Your task to perform on an android device: Clear all items from cart on costco. Add acer nitro to the cart on costco, then select checkout. Image 0: 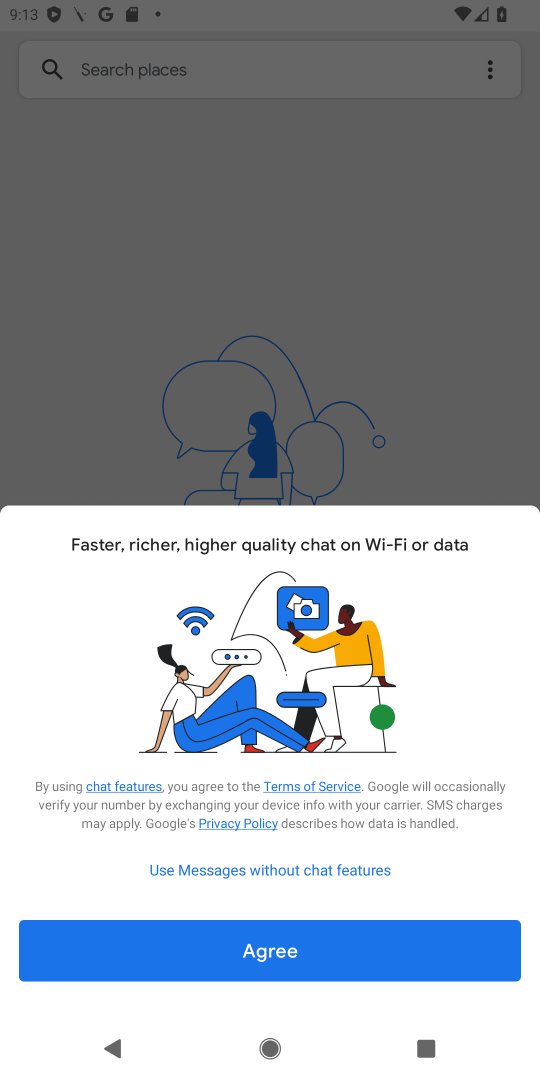
Step 0: press home button
Your task to perform on an android device: Clear all items from cart on costco. Add acer nitro to the cart on costco, then select checkout. Image 1: 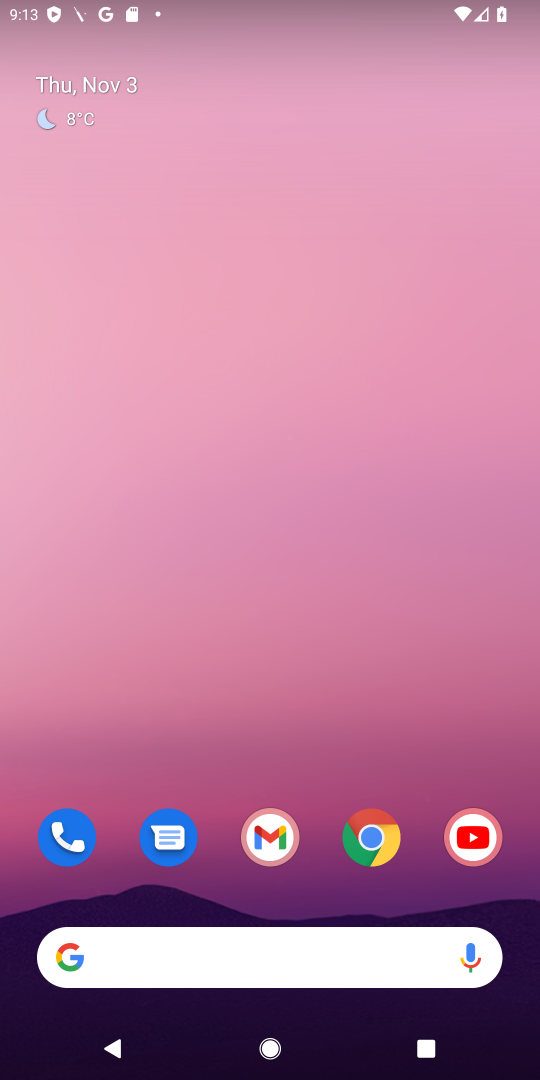
Step 1: click (369, 849)
Your task to perform on an android device: Clear all items from cart on costco. Add acer nitro to the cart on costco, then select checkout. Image 2: 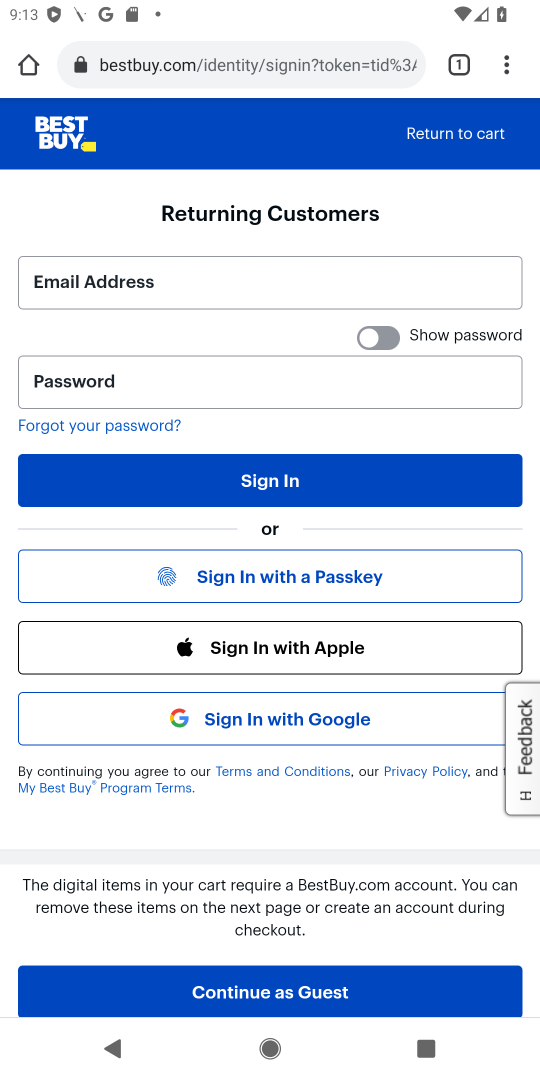
Step 2: click (302, 60)
Your task to perform on an android device: Clear all items from cart on costco. Add acer nitro to the cart on costco, then select checkout. Image 3: 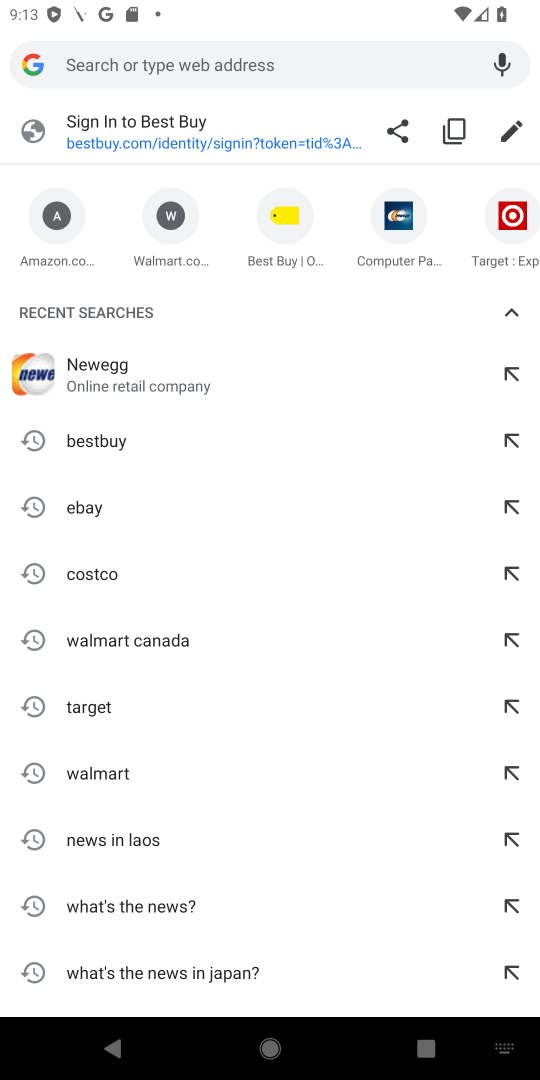
Step 3: click (99, 571)
Your task to perform on an android device: Clear all items from cart on costco. Add acer nitro to the cart on costco, then select checkout. Image 4: 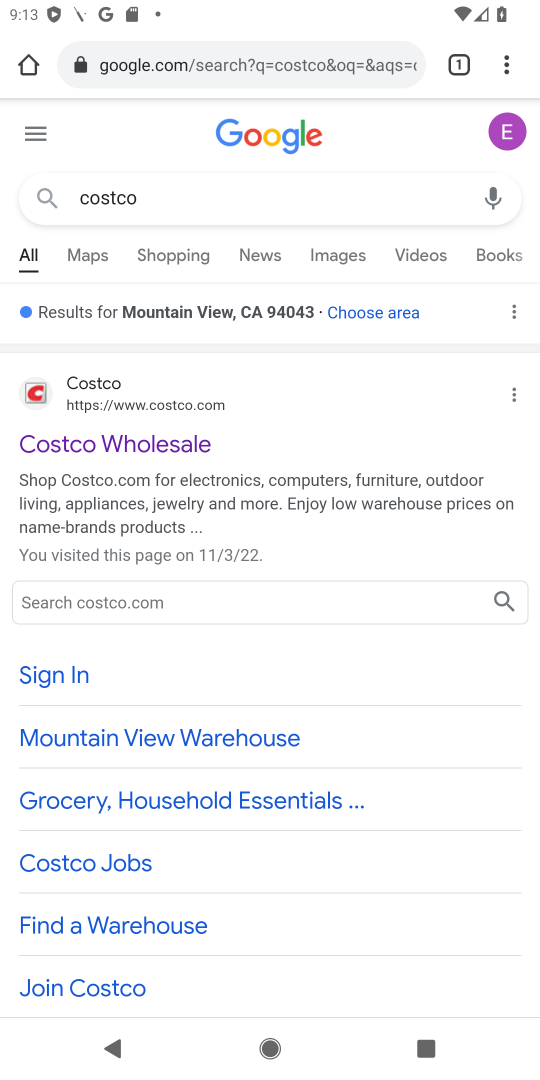
Step 4: click (167, 439)
Your task to perform on an android device: Clear all items from cart on costco. Add acer nitro to the cart on costco, then select checkout. Image 5: 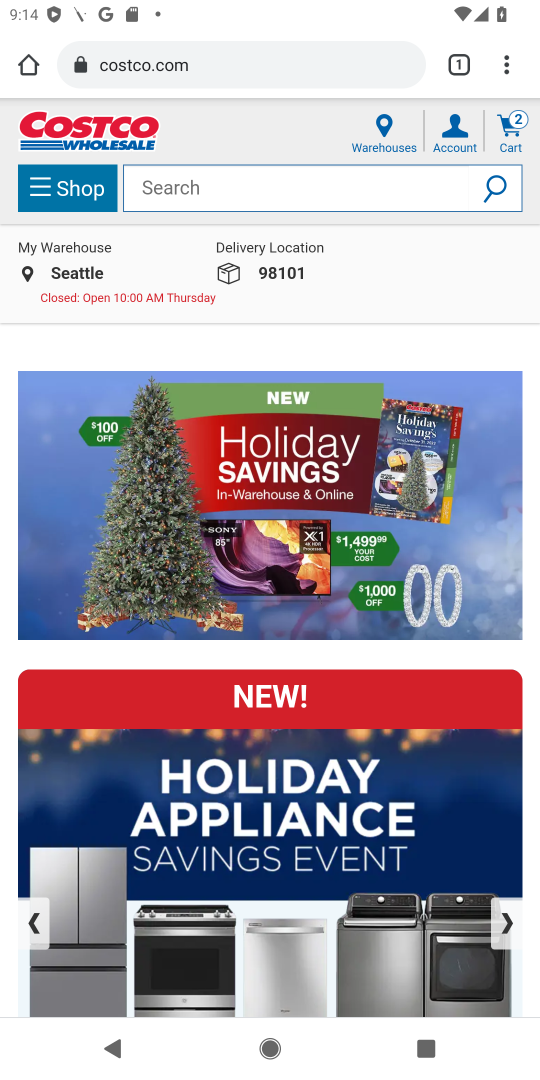
Step 5: click (262, 192)
Your task to perform on an android device: Clear all items from cart on costco. Add acer nitro to the cart on costco, then select checkout. Image 6: 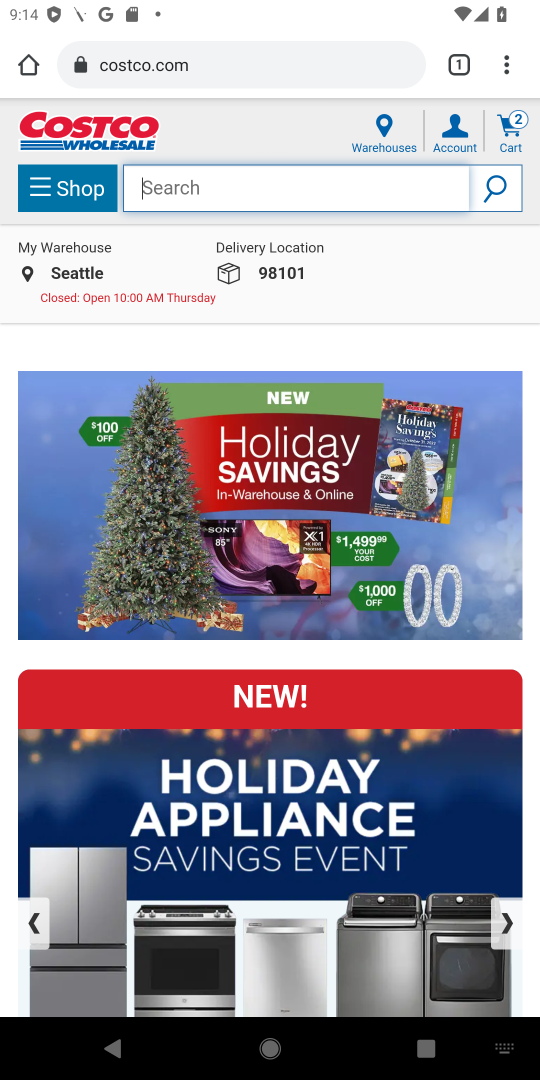
Step 6: click (262, 194)
Your task to perform on an android device: Clear all items from cart on costco. Add acer nitro to the cart on costco, then select checkout. Image 7: 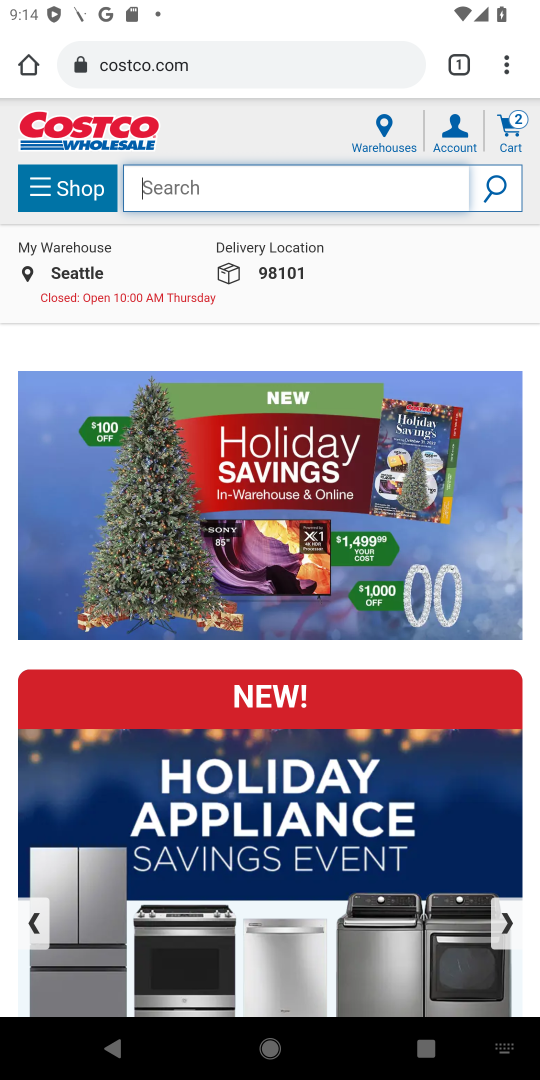
Step 7: type "acer nitro "
Your task to perform on an android device: Clear all items from cart on costco. Add acer nitro to the cart on costco, then select checkout. Image 8: 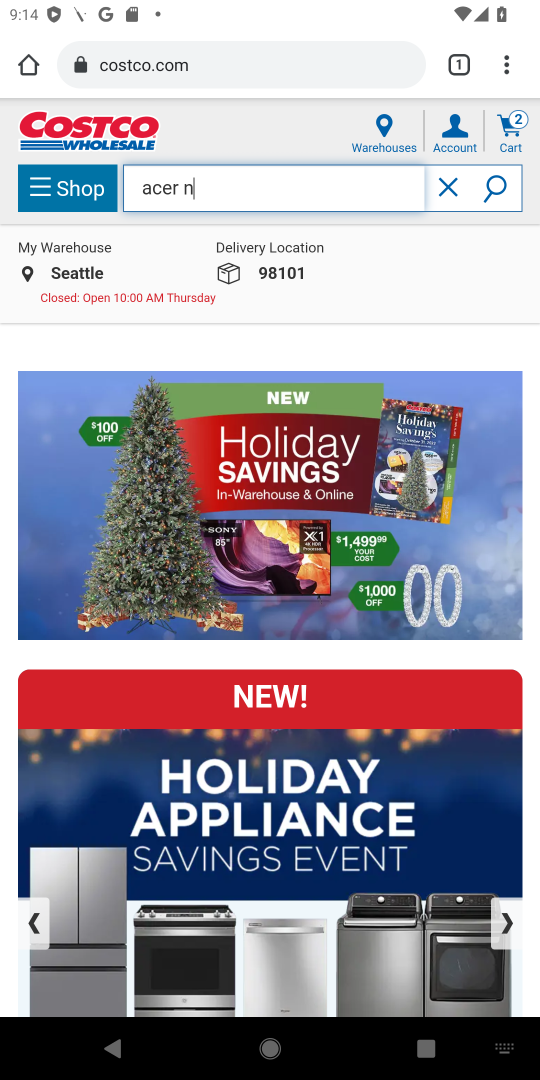
Step 8: press enter
Your task to perform on an android device: Clear all items from cart on costco. Add acer nitro to the cart on costco, then select checkout. Image 9: 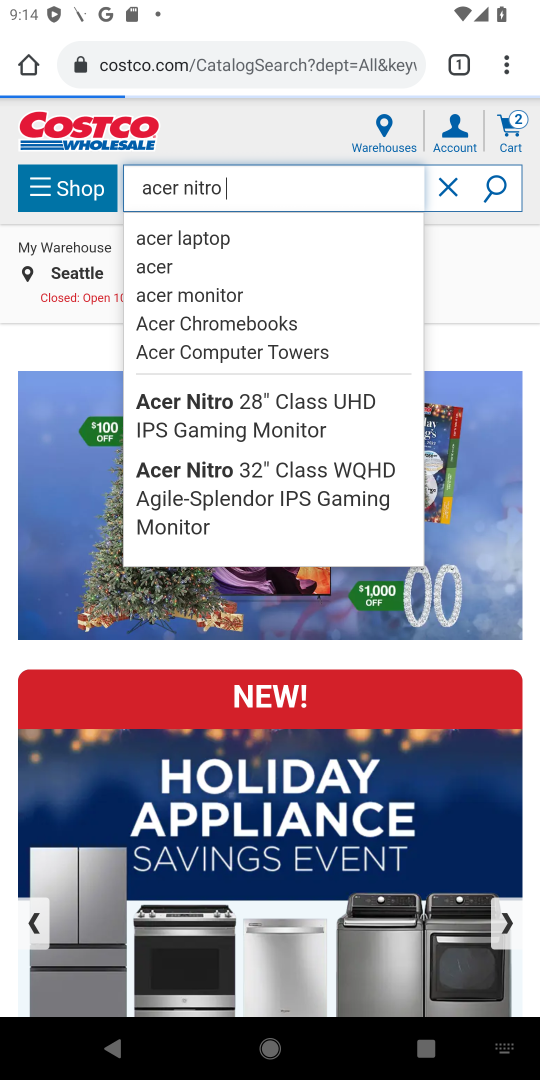
Step 9: press enter
Your task to perform on an android device: Clear all items from cart on costco. Add acer nitro to the cart on costco, then select checkout. Image 10: 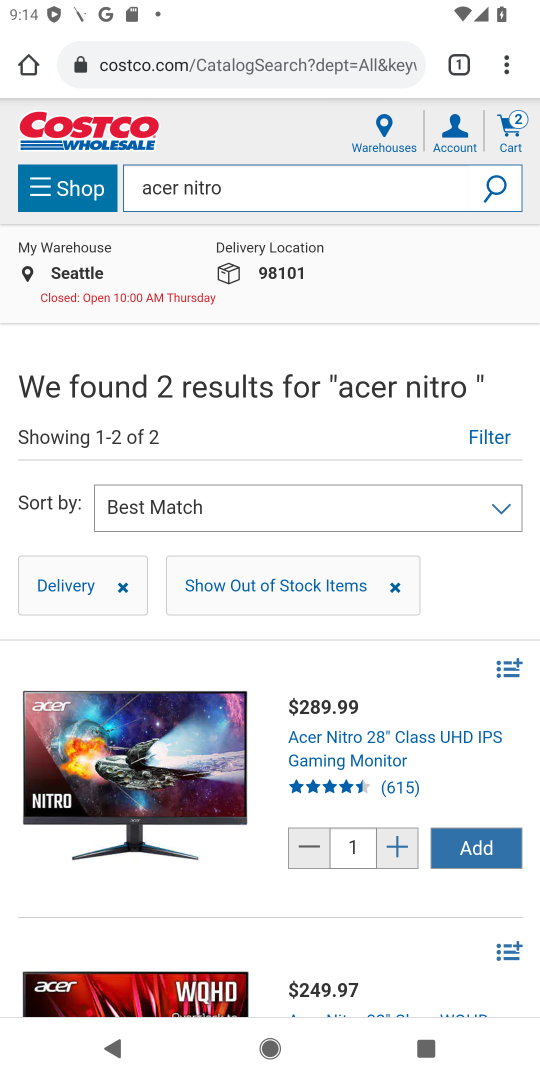
Step 10: click (307, 764)
Your task to perform on an android device: Clear all items from cart on costco. Add acer nitro to the cart on costco, then select checkout. Image 11: 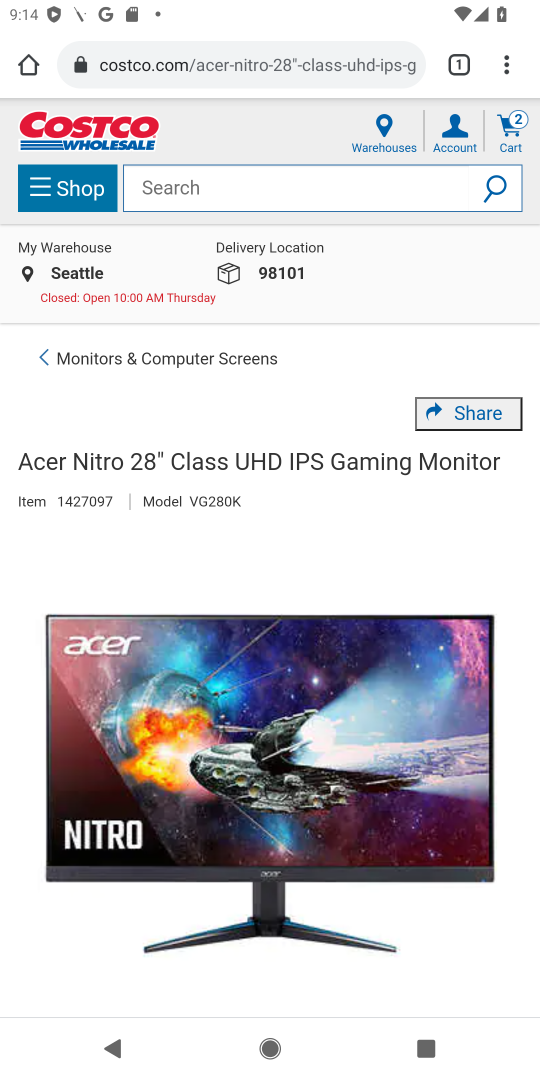
Step 11: drag from (57, 919) to (435, 288)
Your task to perform on an android device: Clear all items from cart on costco. Add acer nitro to the cart on costco, then select checkout. Image 12: 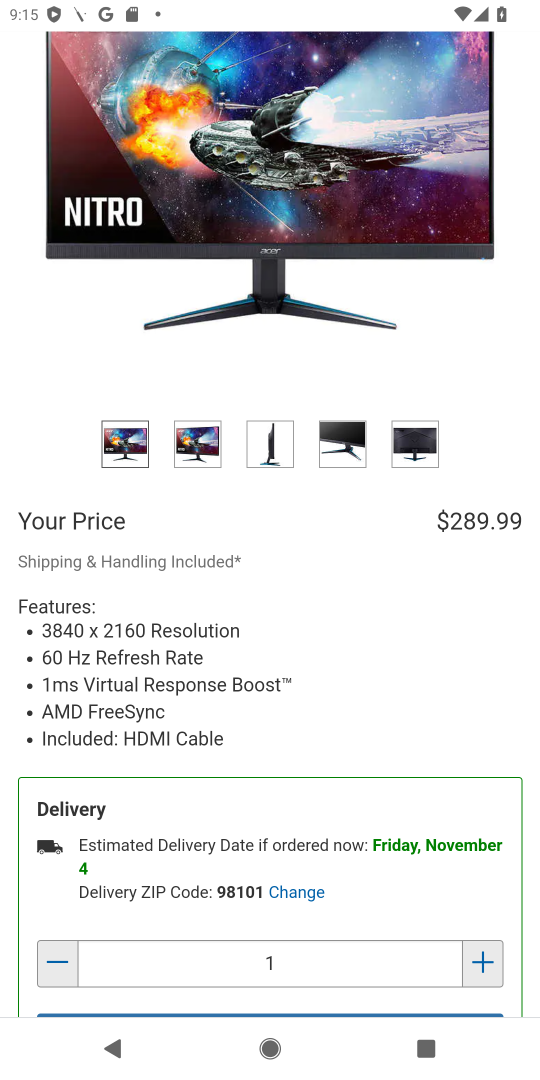
Step 12: drag from (331, 752) to (427, 305)
Your task to perform on an android device: Clear all items from cart on costco. Add acer nitro to the cart on costco, then select checkout. Image 13: 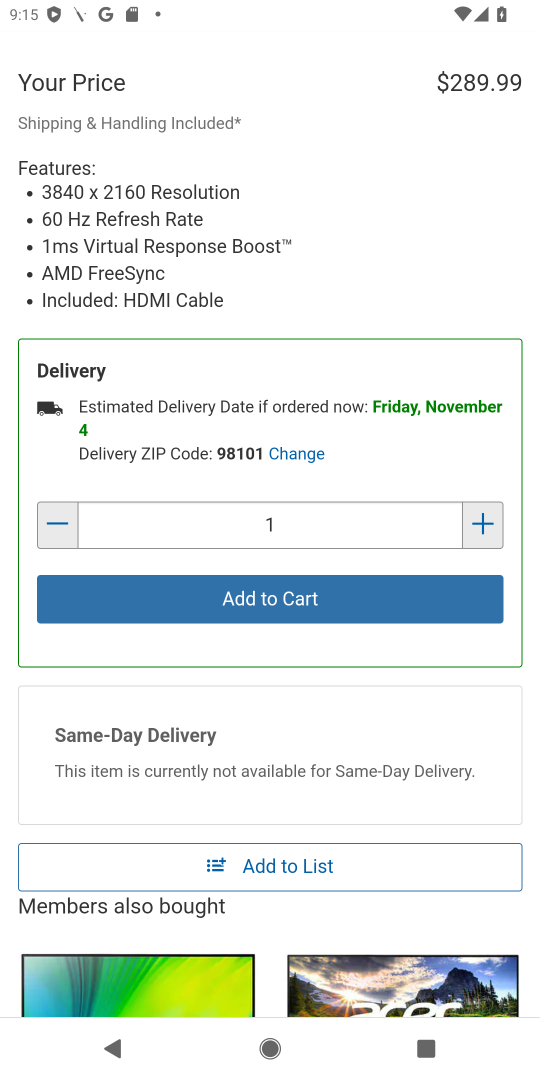
Step 13: click (268, 594)
Your task to perform on an android device: Clear all items from cart on costco. Add acer nitro to the cart on costco, then select checkout. Image 14: 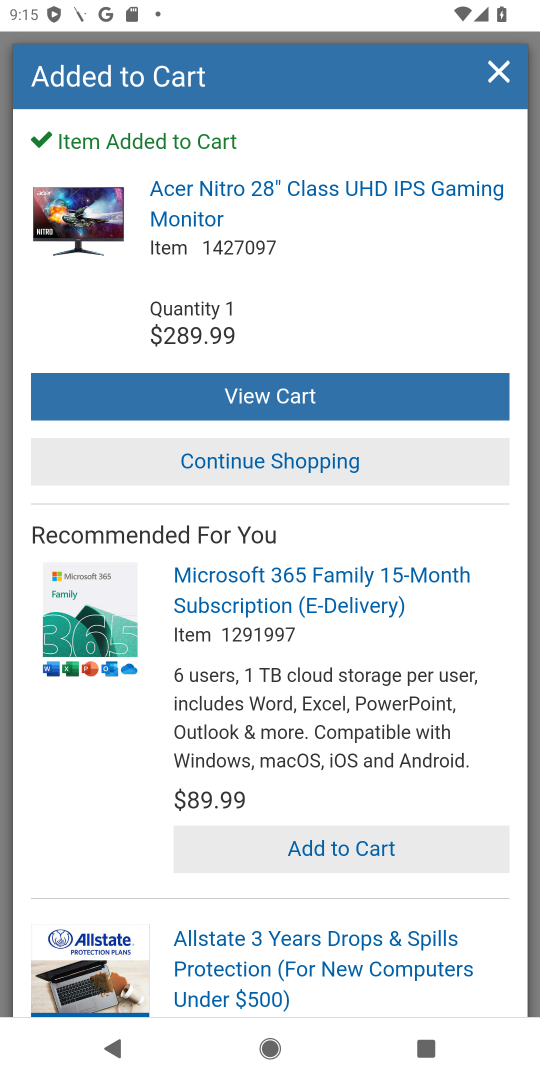
Step 14: click (268, 393)
Your task to perform on an android device: Clear all items from cart on costco. Add acer nitro to the cart on costco, then select checkout. Image 15: 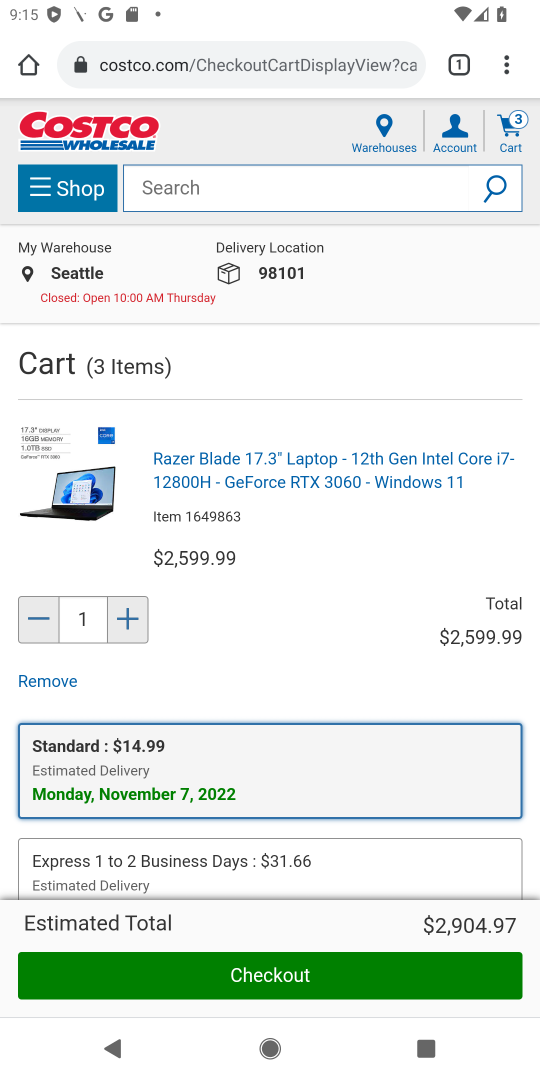
Step 15: drag from (288, 700) to (412, 261)
Your task to perform on an android device: Clear all items from cart on costco. Add acer nitro to the cart on costco, then select checkout. Image 16: 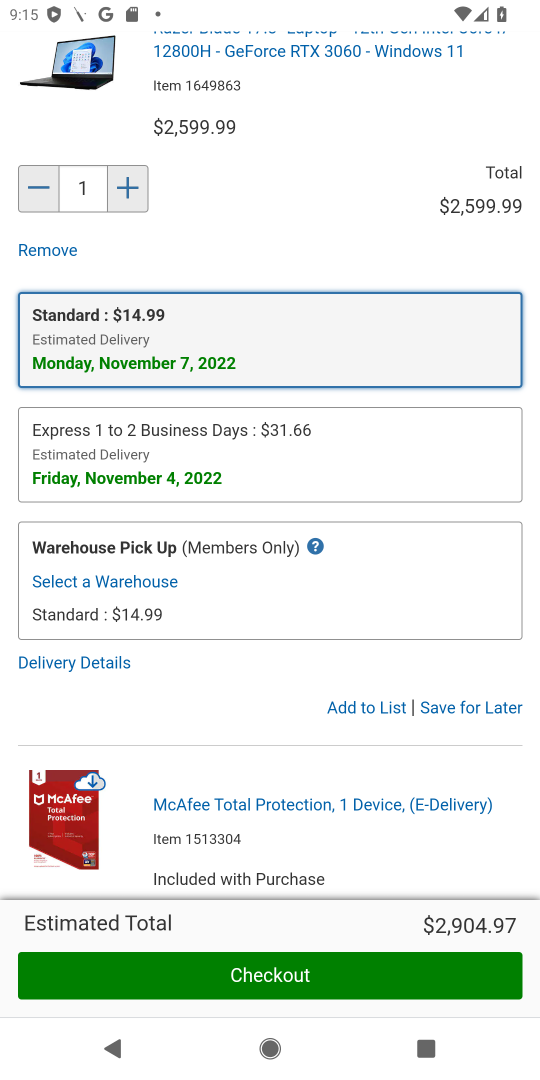
Step 16: click (288, 979)
Your task to perform on an android device: Clear all items from cart on costco. Add acer nitro to the cart on costco, then select checkout. Image 17: 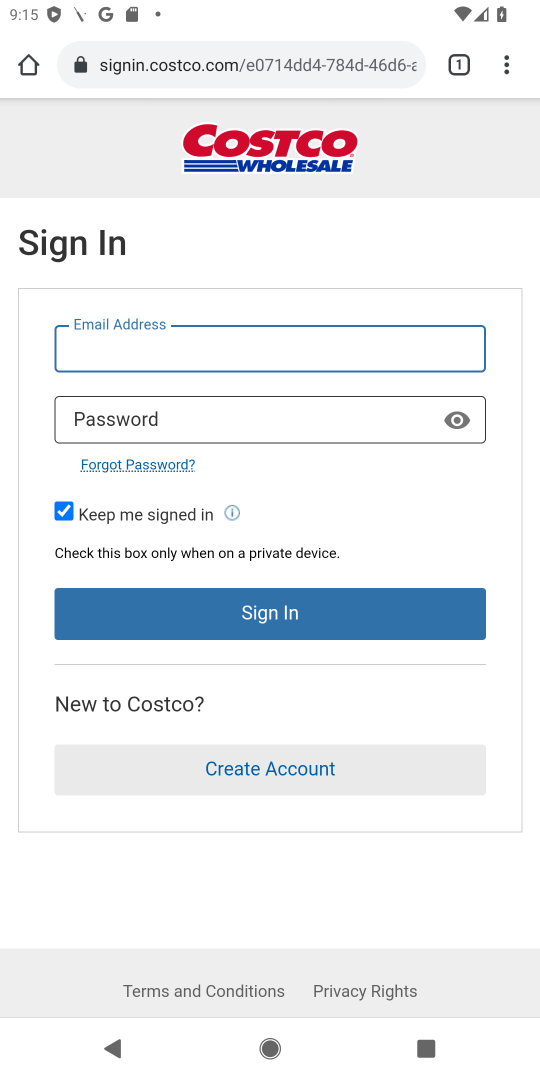
Step 17: task complete